Your task to perform on an android device: turn on improve location accuracy Image 0: 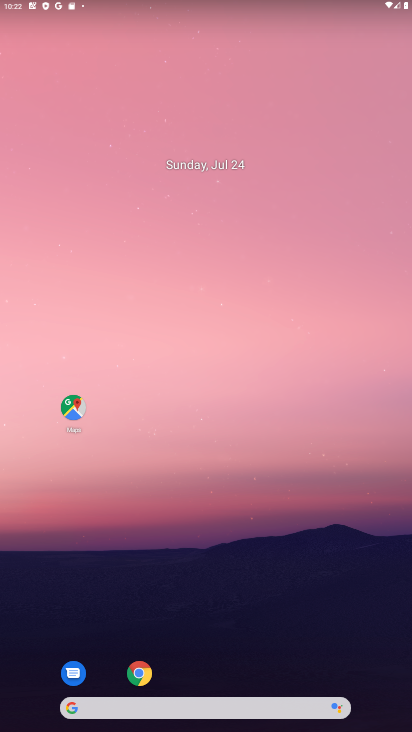
Step 0: click (120, 706)
Your task to perform on an android device: turn on improve location accuracy Image 1: 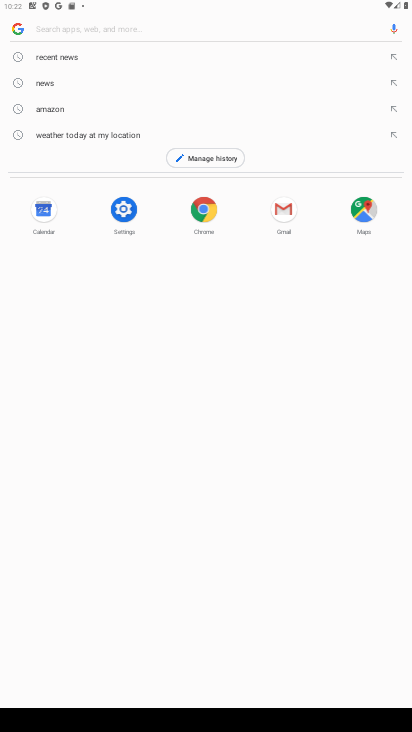
Step 1: press home button
Your task to perform on an android device: turn on improve location accuracy Image 2: 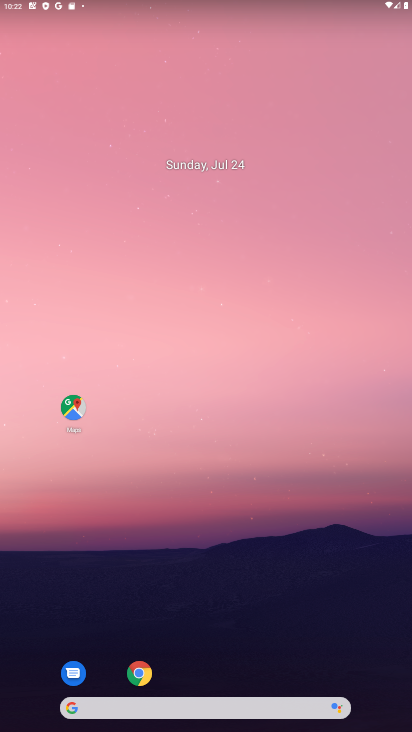
Step 2: drag from (43, 689) to (246, 106)
Your task to perform on an android device: turn on improve location accuracy Image 3: 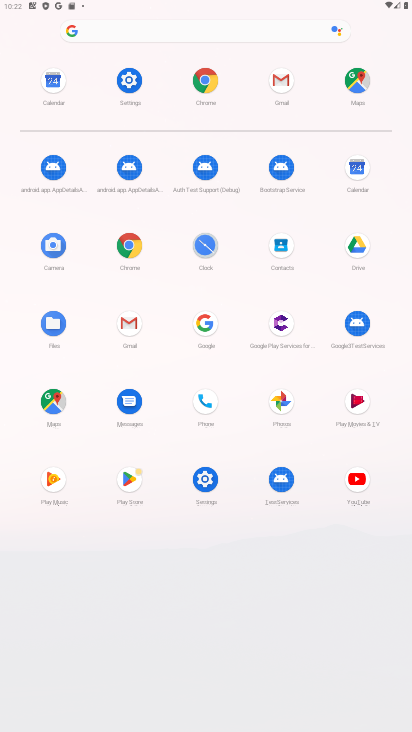
Step 3: click (197, 474)
Your task to perform on an android device: turn on improve location accuracy Image 4: 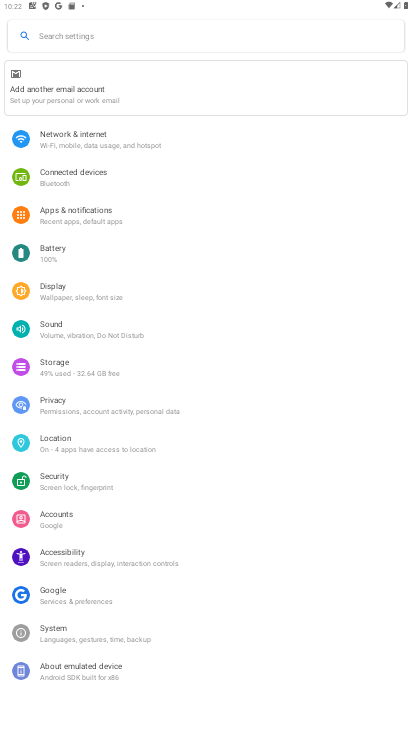
Step 4: click (64, 450)
Your task to perform on an android device: turn on improve location accuracy Image 5: 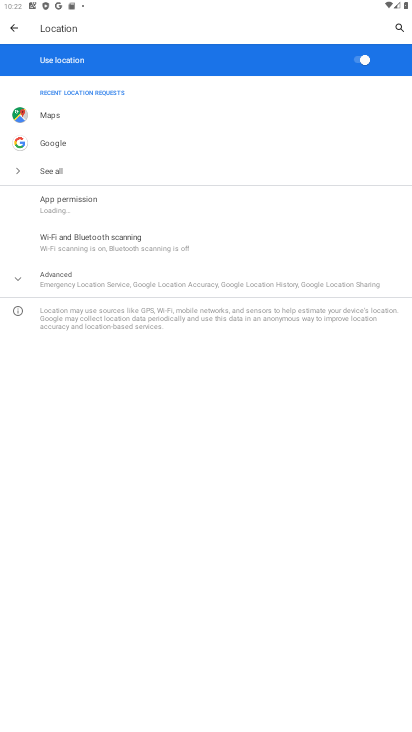
Step 5: click (73, 280)
Your task to perform on an android device: turn on improve location accuracy Image 6: 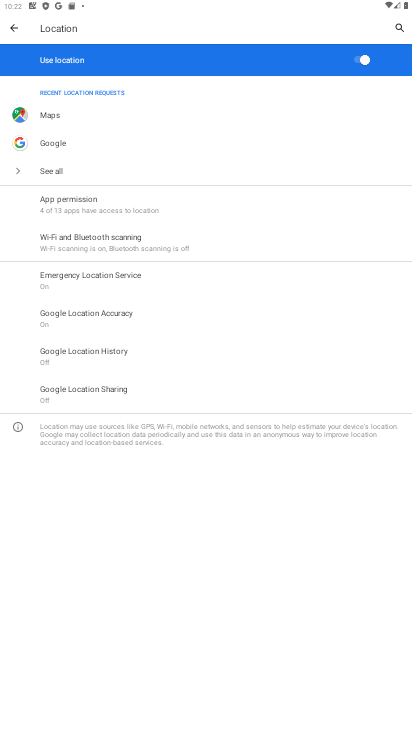
Step 6: task complete